Your task to perform on an android device: read, delete, or share a saved page in the chrome app Image 0: 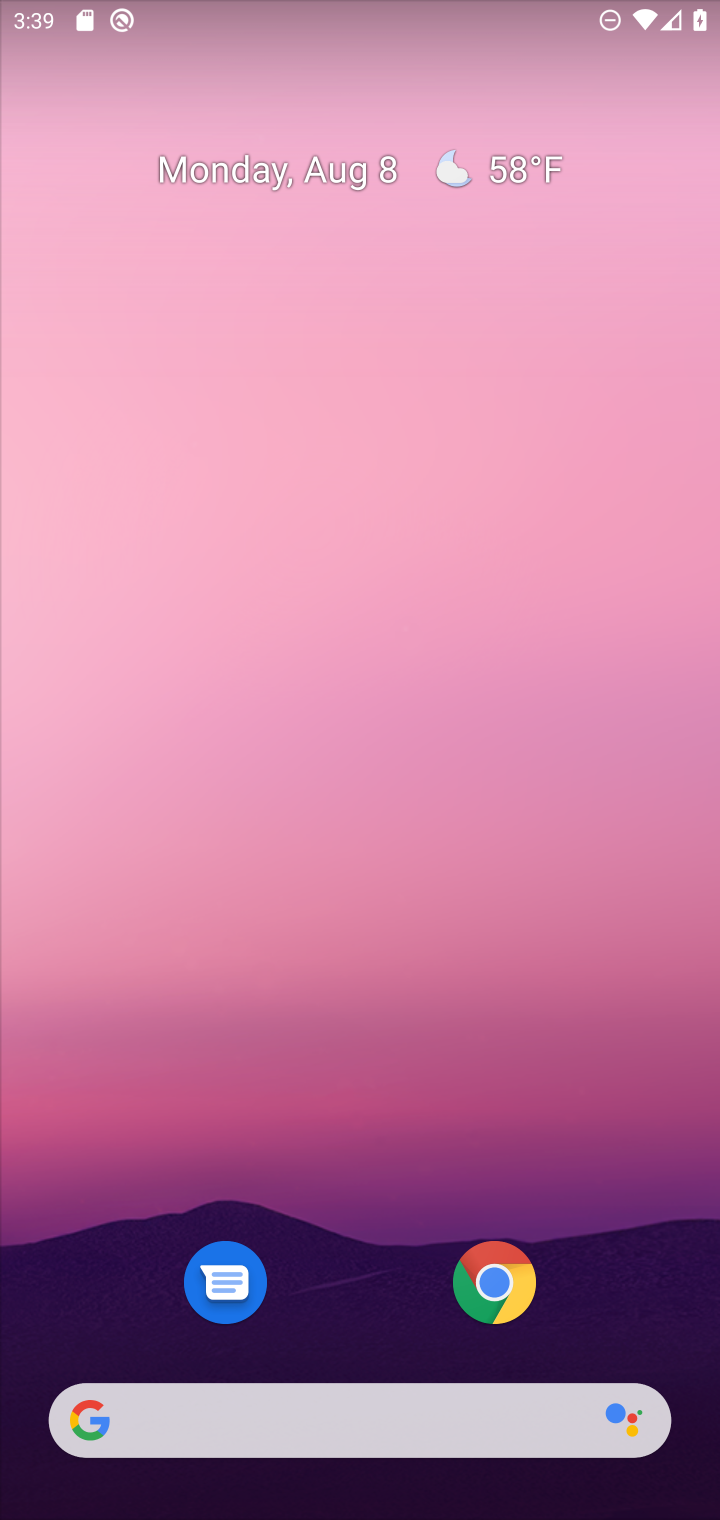
Step 0: drag from (428, 694) to (537, 343)
Your task to perform on an android device: read, delete, or share a saved page in the chrome app Image 1: 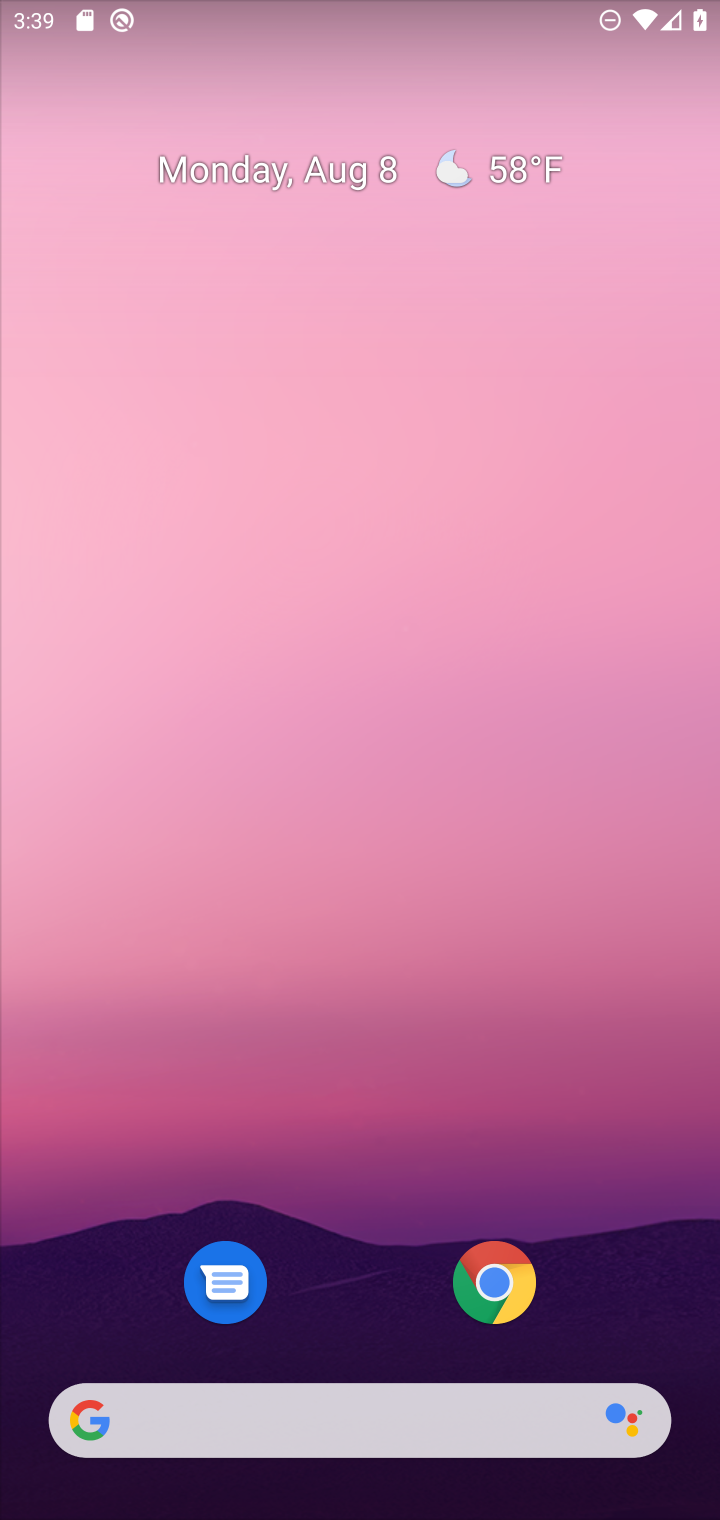
Step 1: drag from (311, 1039) to (595, 128)
Your task to perform on an android device: read, delete, or share a saved page in the chrome app Image 2: 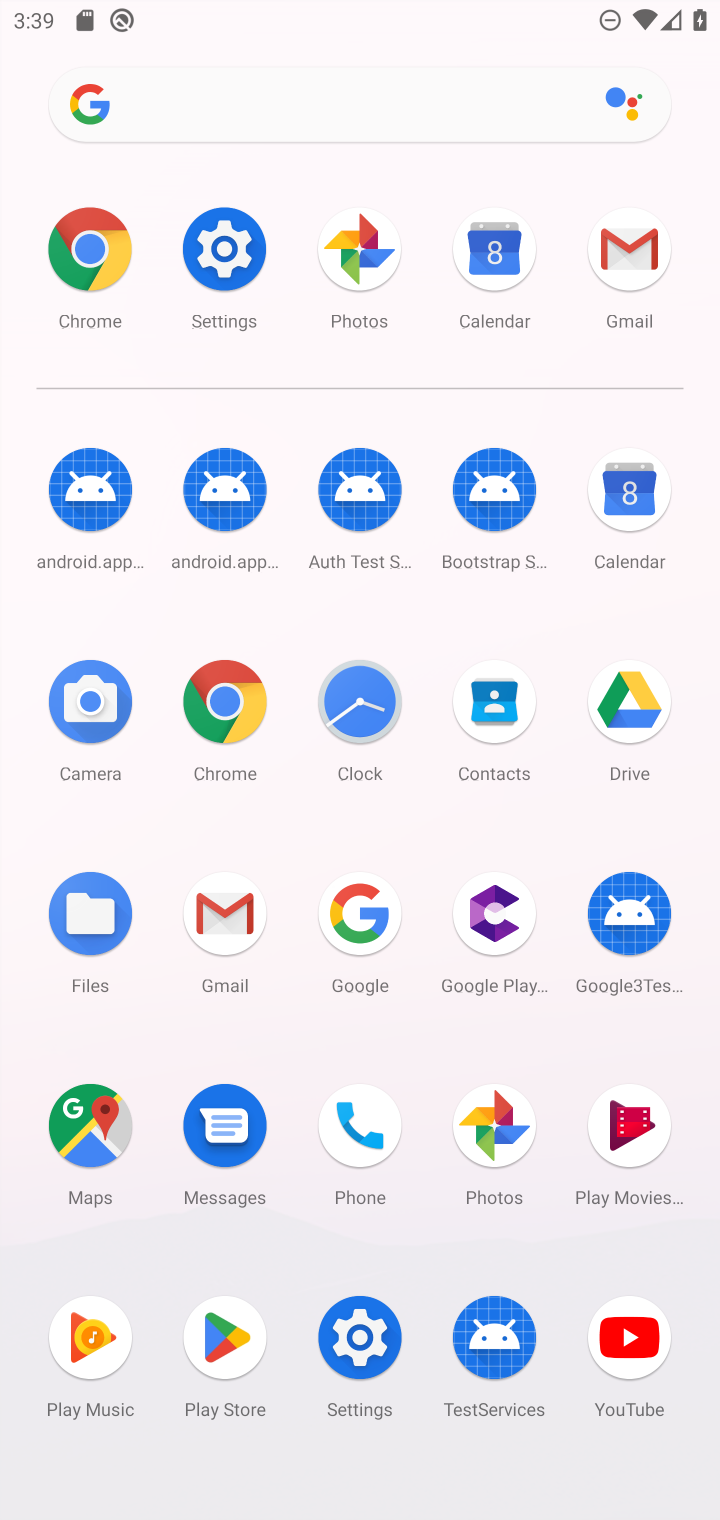
Step 2: click (209, 684)
Your task to perform on an android device: read, delete, or share a saved page in the chrome app Image 3: 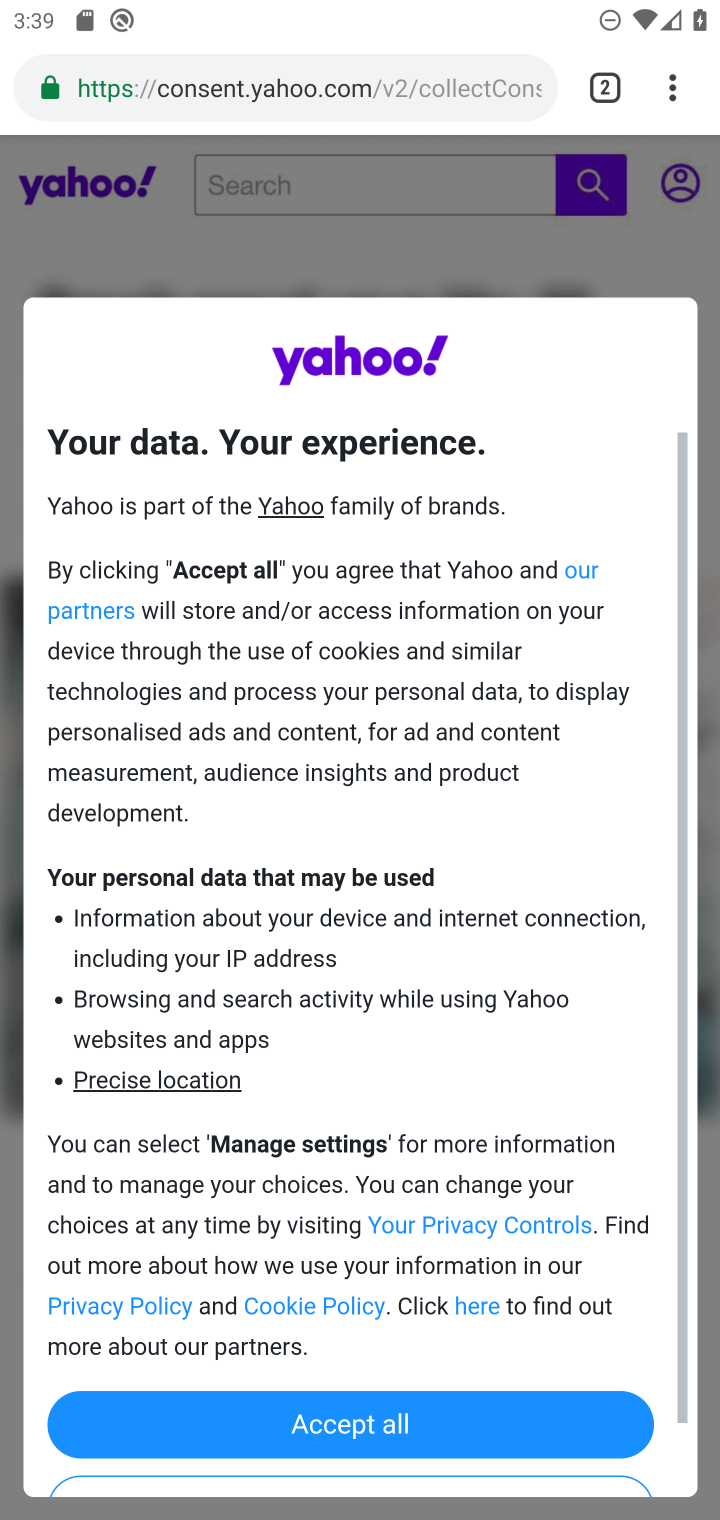
Step 3: task complete